Your task to perform on an android device: Add "razer deathadder" to the cart on amazon, then select checkout. Image 0: 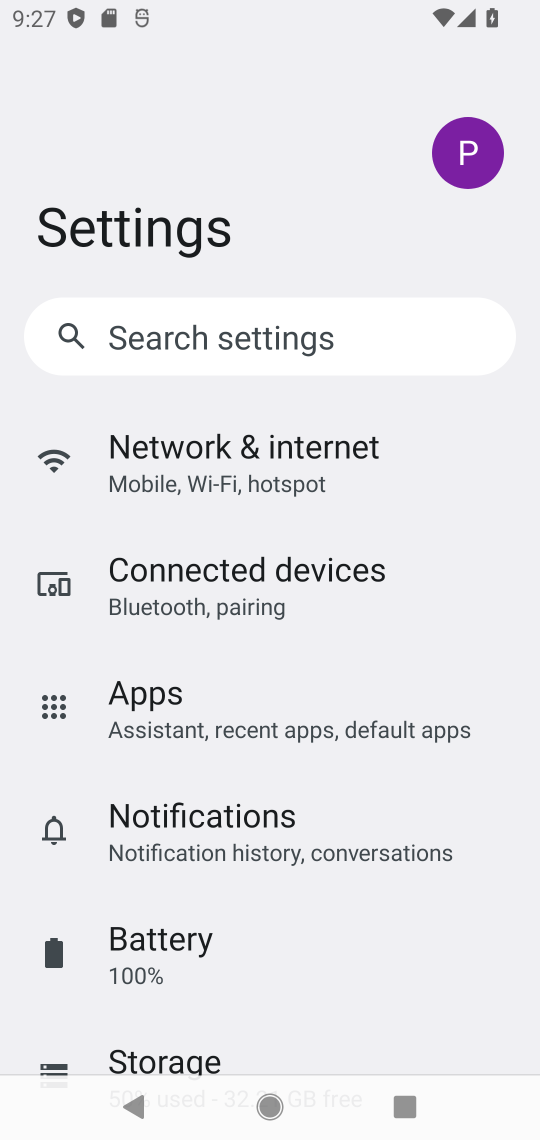
Step 0: press home button
Your task to perform on an android device: Add "razer deathadder" to the cart on amazon, then select checkout. Image 1: 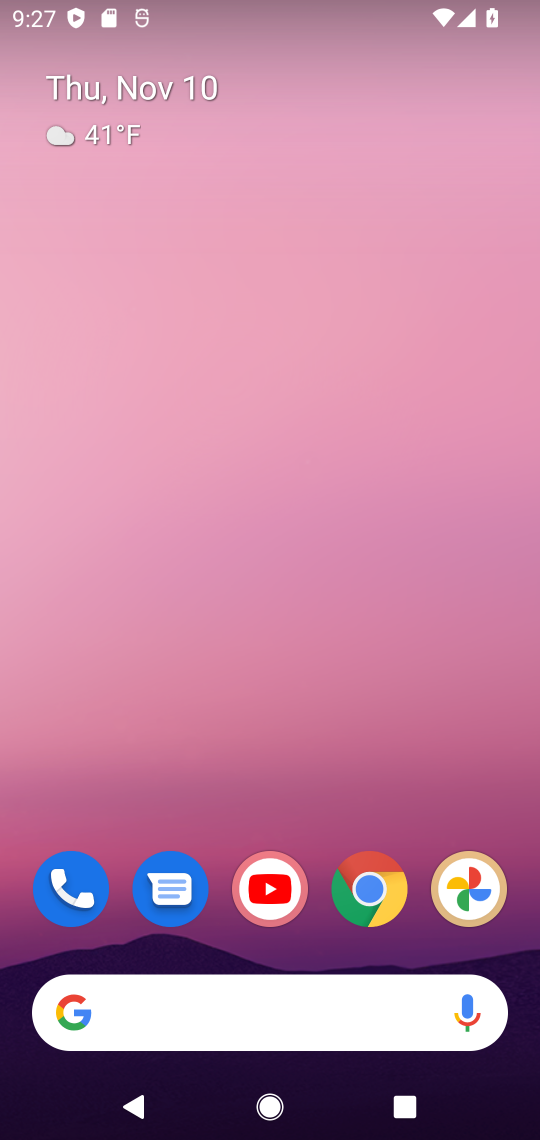
Step 1: click (368, 881)
Your task to perform on an android device: Add "razer deathadder" to the cart on amazon, then select checkout. Image 2: 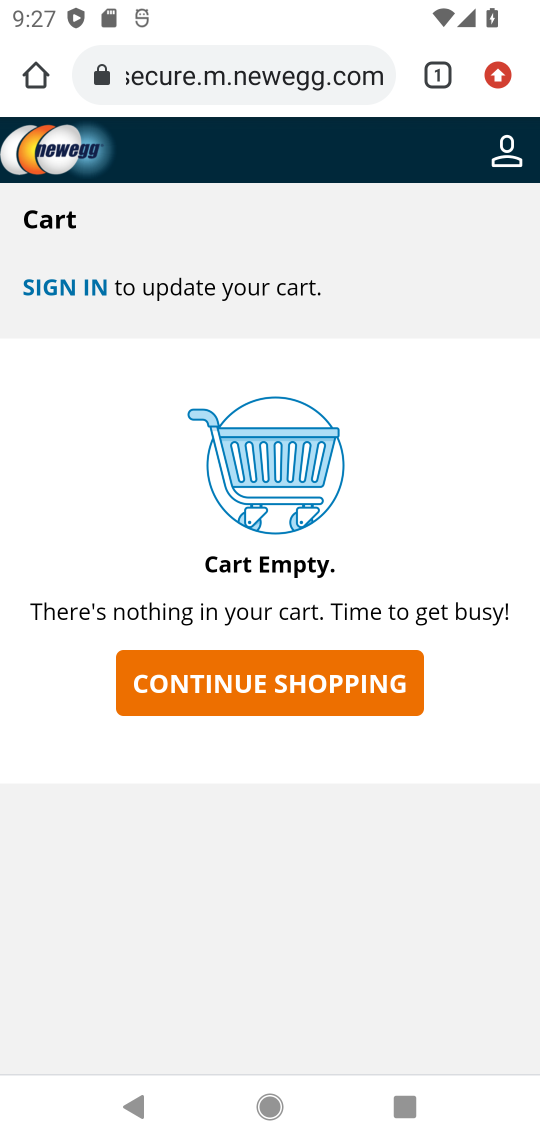
Step 2: click (338, 79)
Your task to perform on an android device: Add "razer deathadder" to the cart on amazon, then select checkout. Image 3: 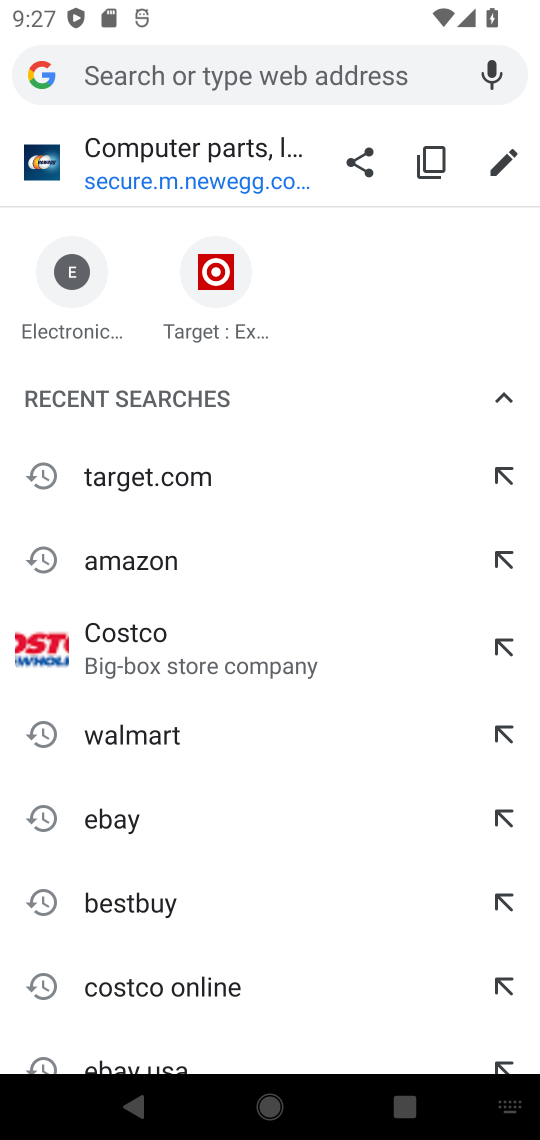
Step 3: click (117, 557)
Your task to perform on an android device: Add "razer deathadder" to the cart on amazon, then select checkout. Image 4: 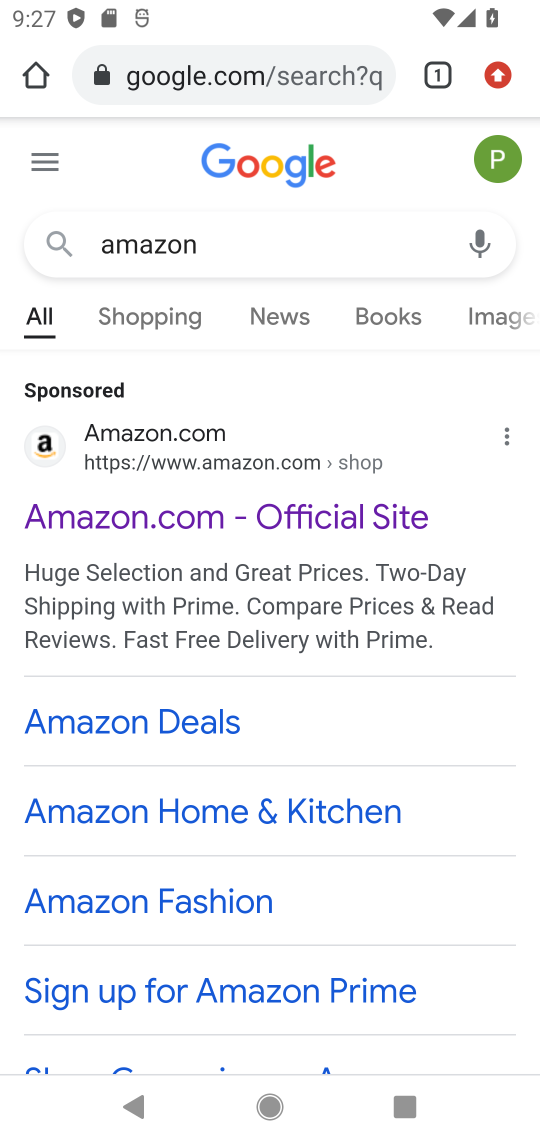
Step 4: click (112, 519)
Your task to perform on an android device: Add "razer deathadder" to the cart on amazon, then select checkout. Image 5: 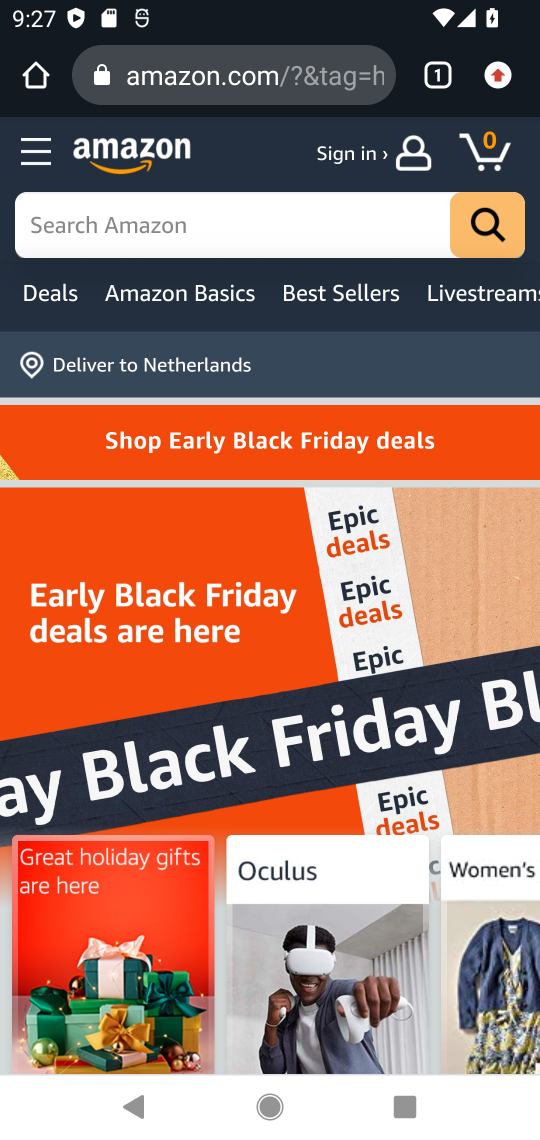
Step 5: click (201, 220)
Your task to perform on an android device: Add "razer deathadder" to the cart on amazon, then select checkout. Image 6: 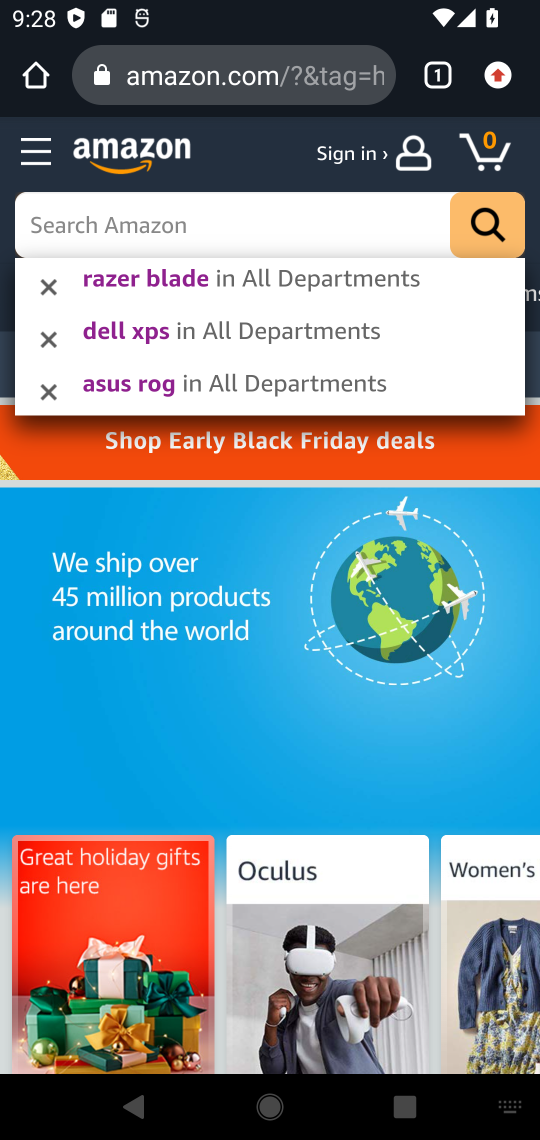
Step 6: type "razer deathadder"
Your task to perform on an android device: Add "razer deathadder" to the cart on amazon, then select checkout. Image 7: 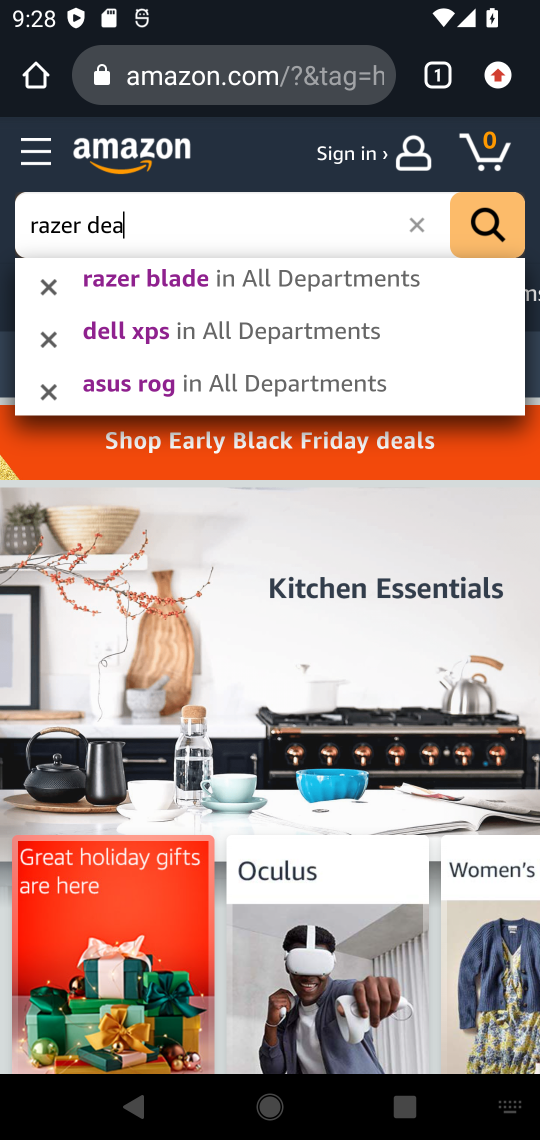
Step 7: press enter
Your task to perform on an android device: Add "razer deathadder" to the cart on amazon, then select checkout. Image 8: 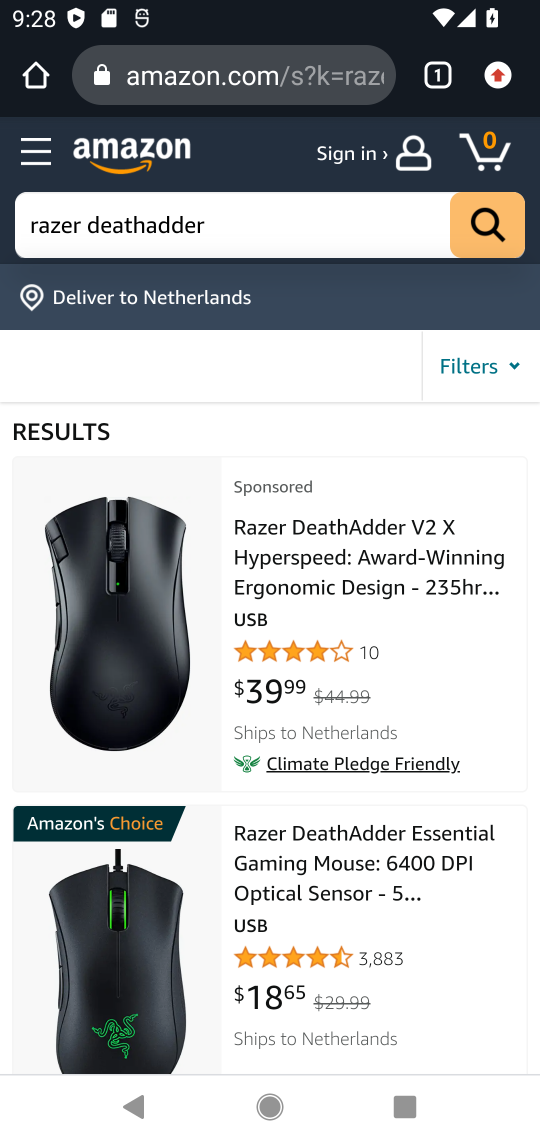
Step 8: click (336, 569)
Your task to perform on an android device: Add "razer deathadder" to the cart on amazon, then select checkout. Image 9: 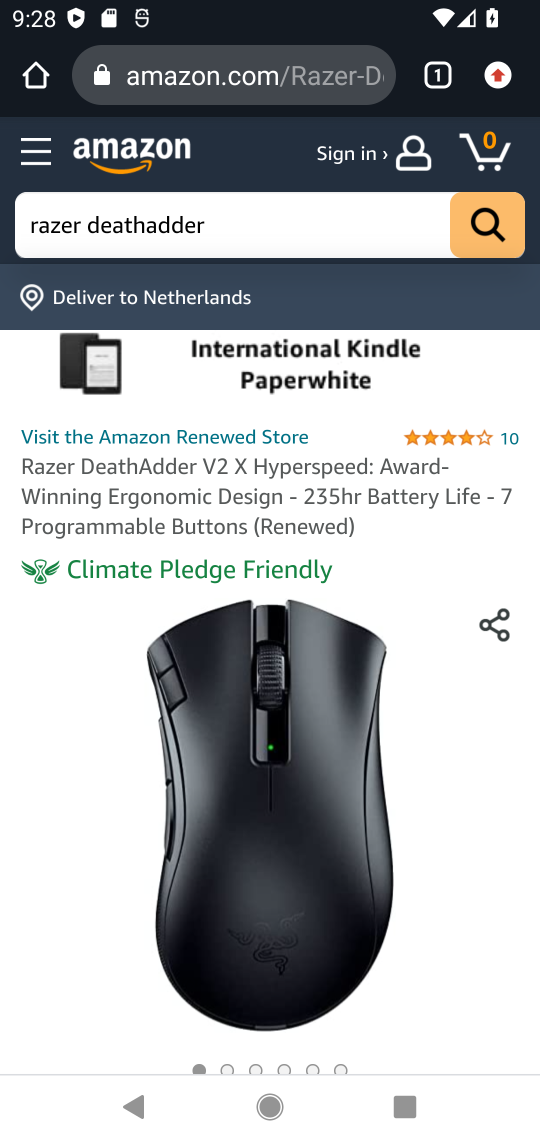
Step 9: drag from (118, 821) to (266, 380)
Your task to perform on an android device: Add "razer deathadder" to the cart on amazon, then select checkout. Image 10: 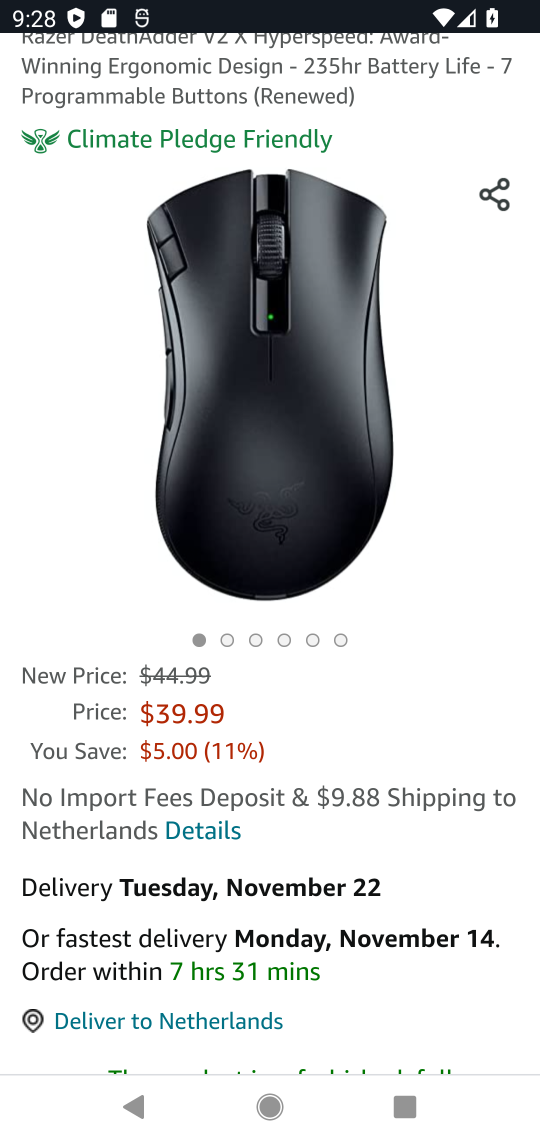
Step 10: drag from (357, 854) to (498, 202)
Your task to perform on an android device: Add "razer deathadder" to the cart on amazon, then select checkout. Image 11: 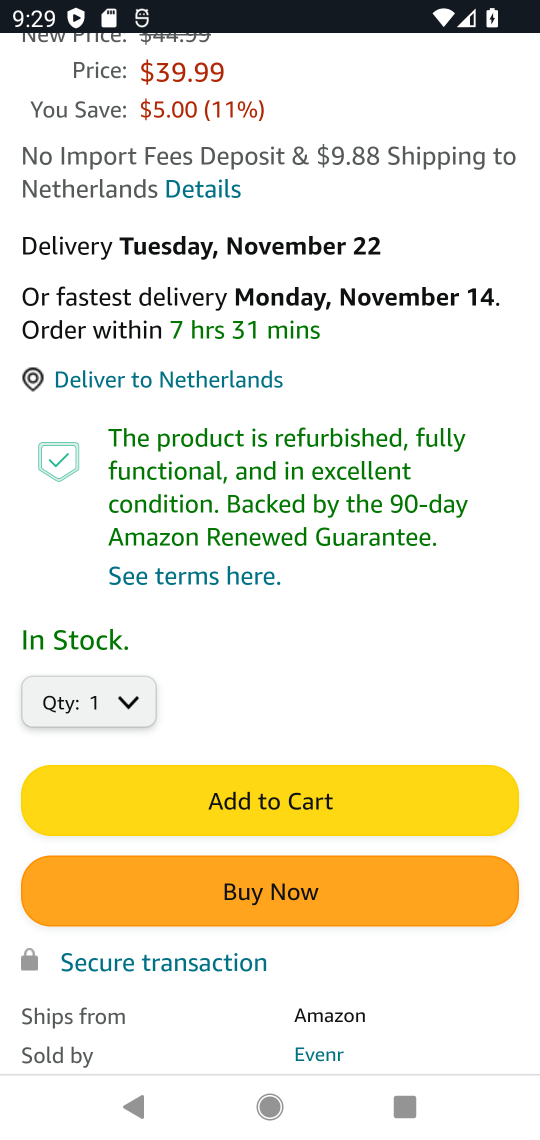
Step 11: click (251, 800)
Your task to perform on an android device: Add "razer deathadder" to the cart on amazon, then select checkout. Image 12: 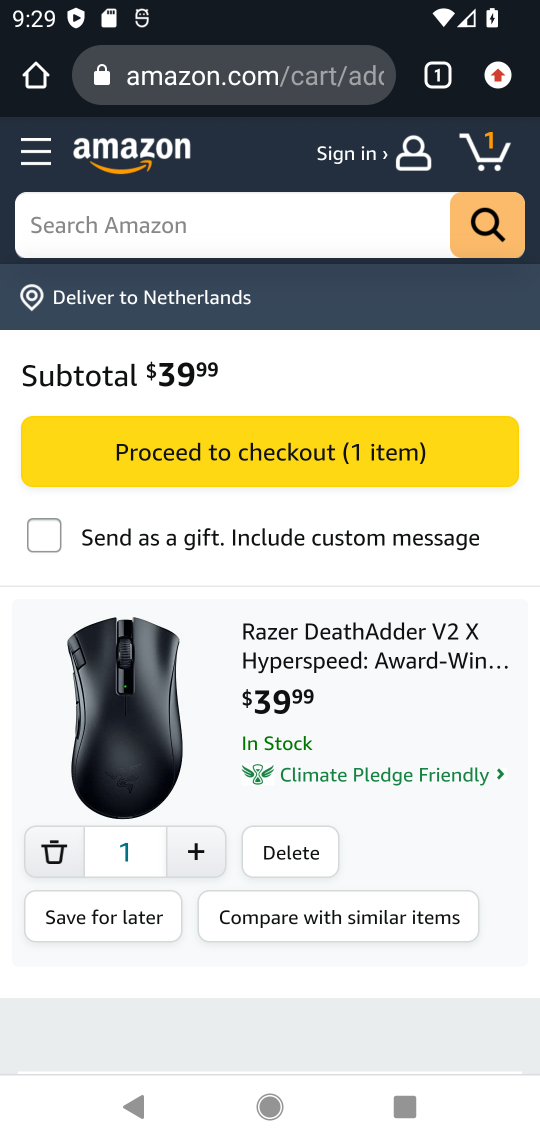
Step 12: click (344, 443)
Your task to perform on an android device: Add "razer deathadder" to the cart on amazon, then select checkout. Image 13: 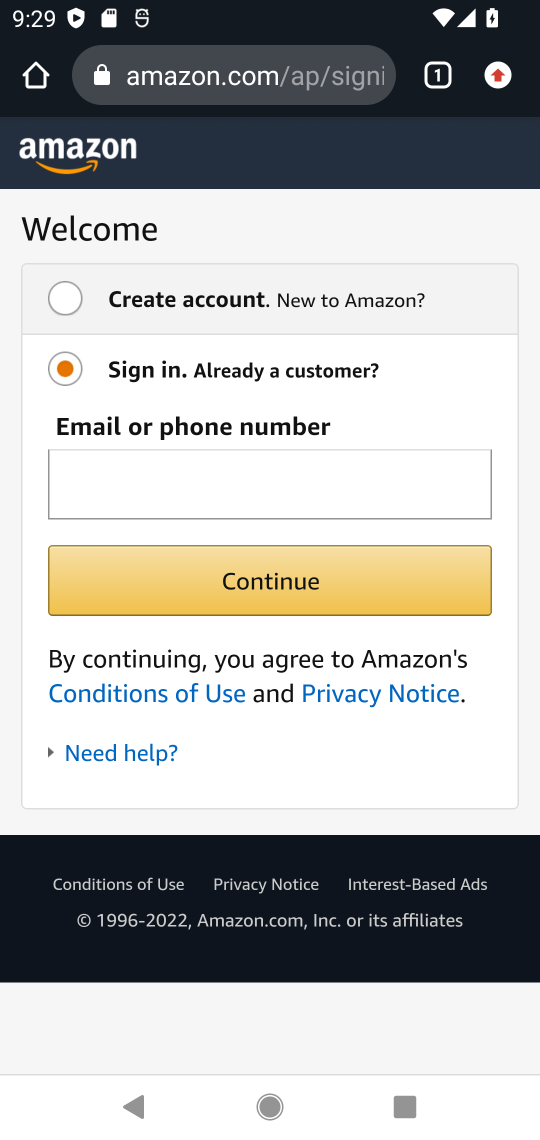
Step 13: task complete